Your task to perform on an android device: Add "razer naga" to the cart on ebay, then select checkout. Image 0: 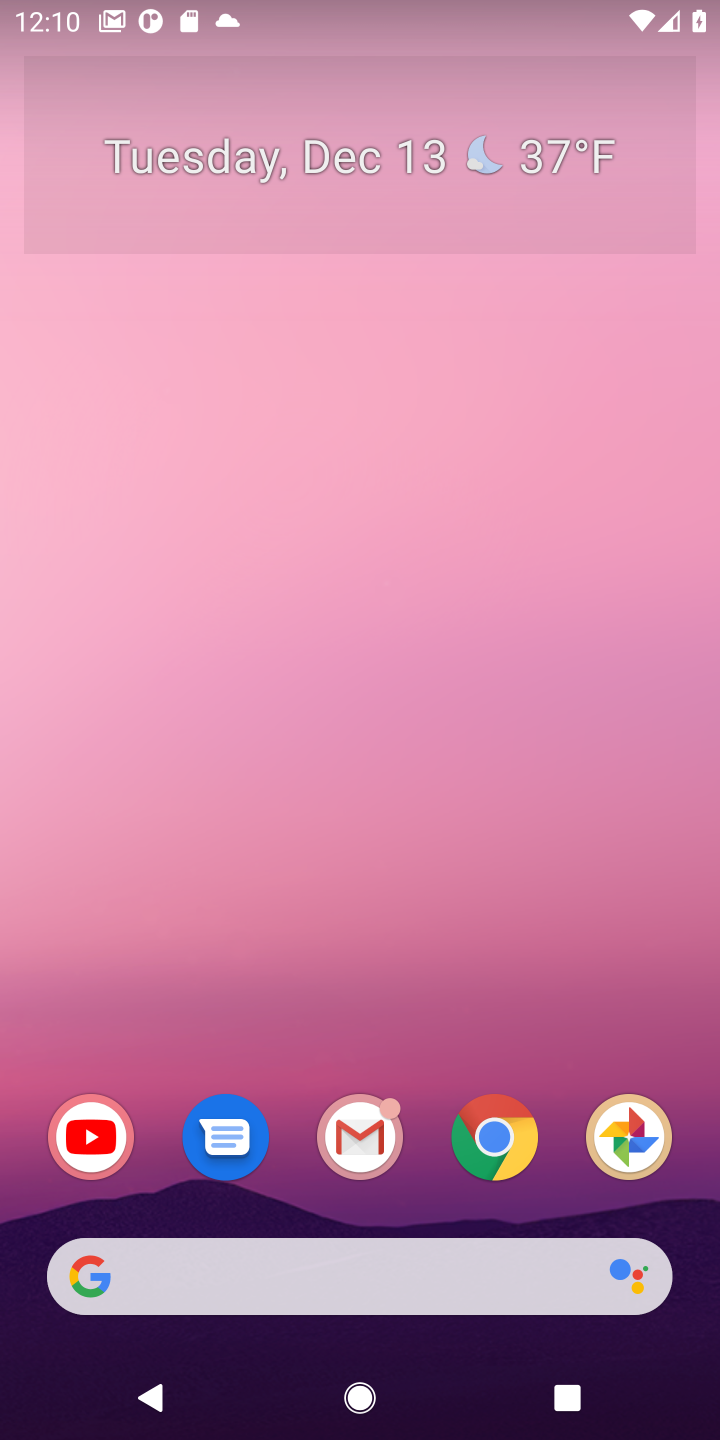
Step 0: click (257, 1283)
Your task to perform on an android device: Add "razer naga" to the cart on ebay, then select checkout. Image 1: 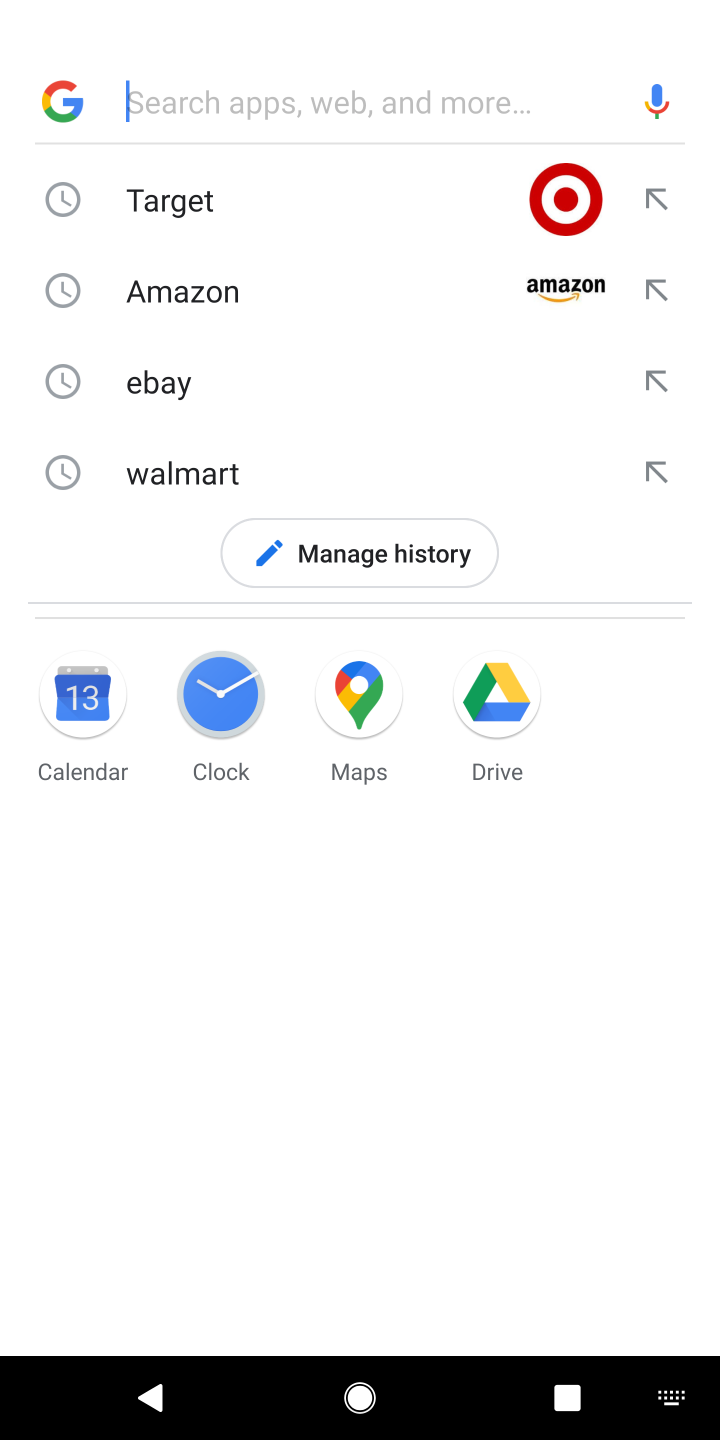
Step 1: click (289, 388)
Your task to perform on an android device: Add "razer naga" to the cart on ebay, then select checkout. Image 2: 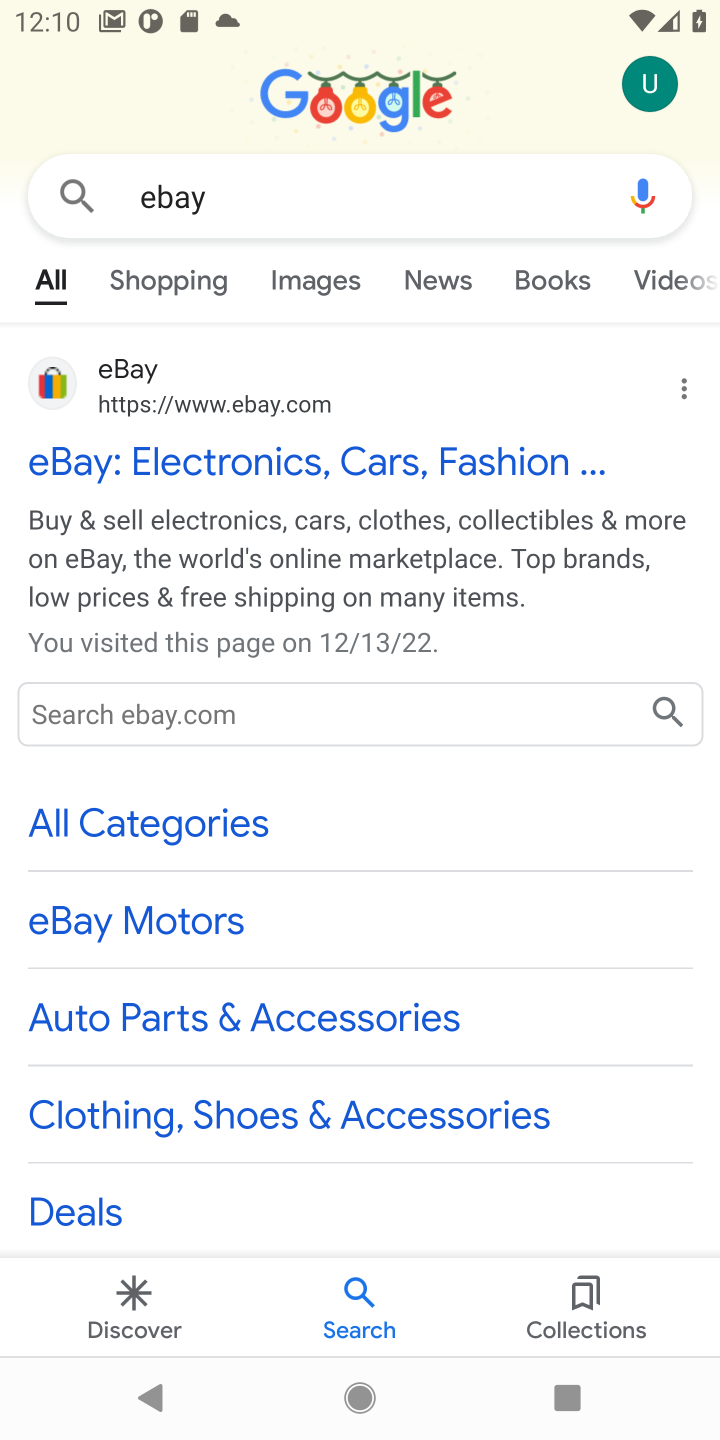
Step 2: click (238, 438)
Your task to perform on an android device: Add "razer naga" to the cart on ebay, then select checkout. Image 3: 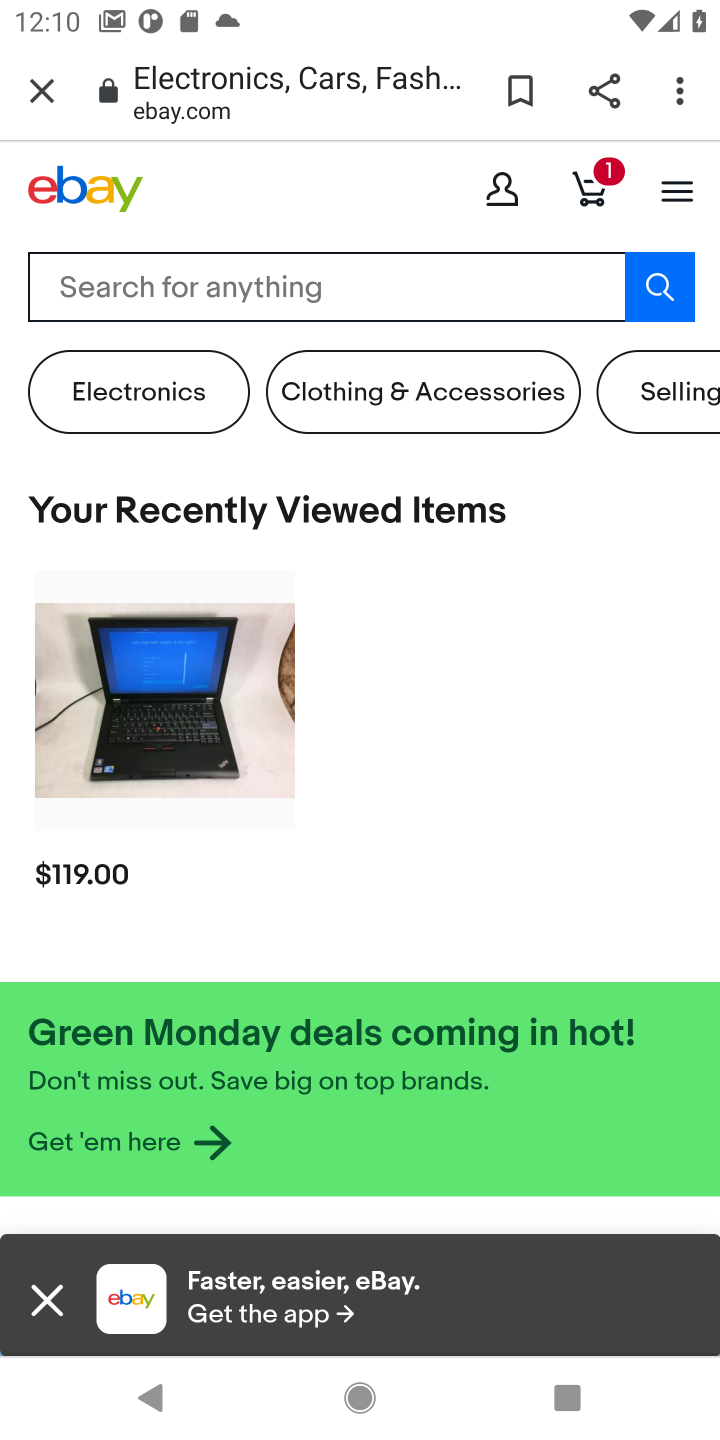
Step 3: click (296, 307)
Your task to perform on an android device: Add "razer naga" to the cart on ebay, then select checkout. Image 4: 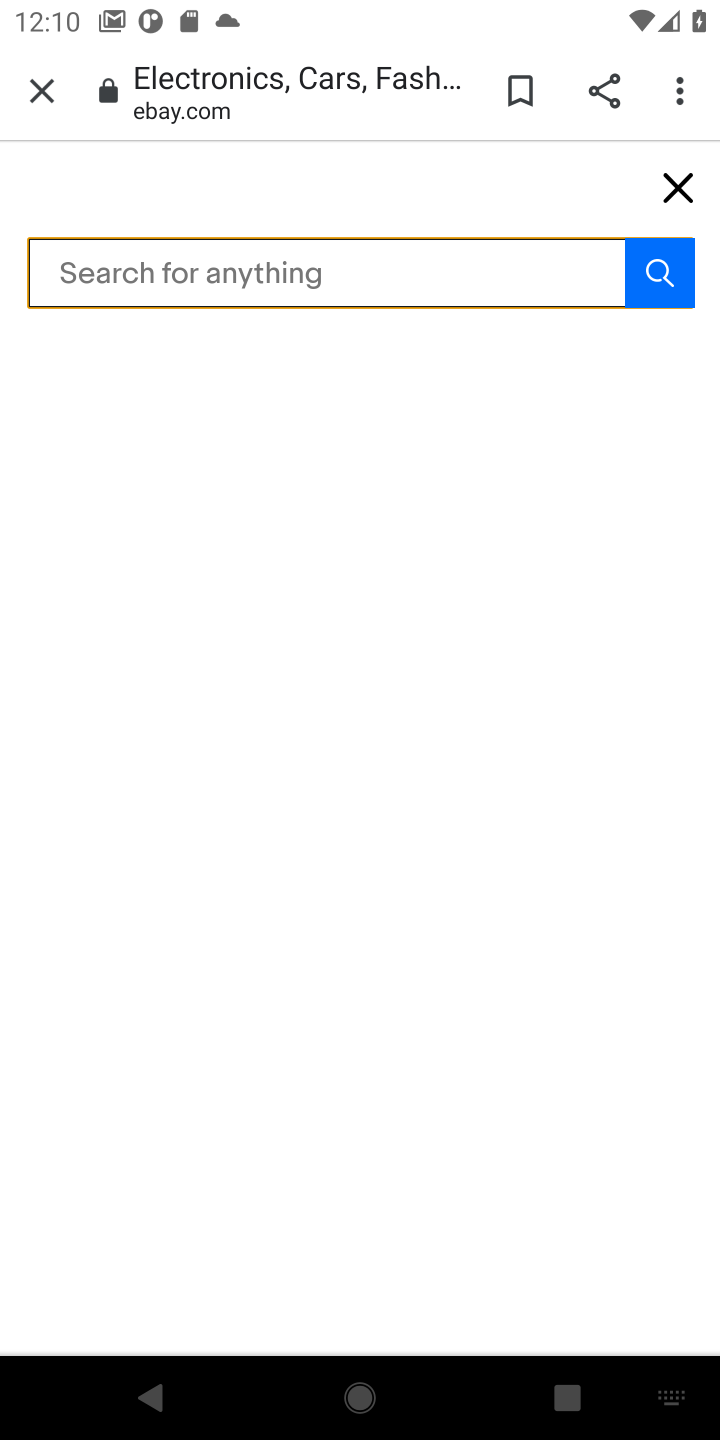
Step 4: type "razer naga"
Your task to perform on an android device: Add "razer naga" to the cart on ebay, then select checkout. Image 5: 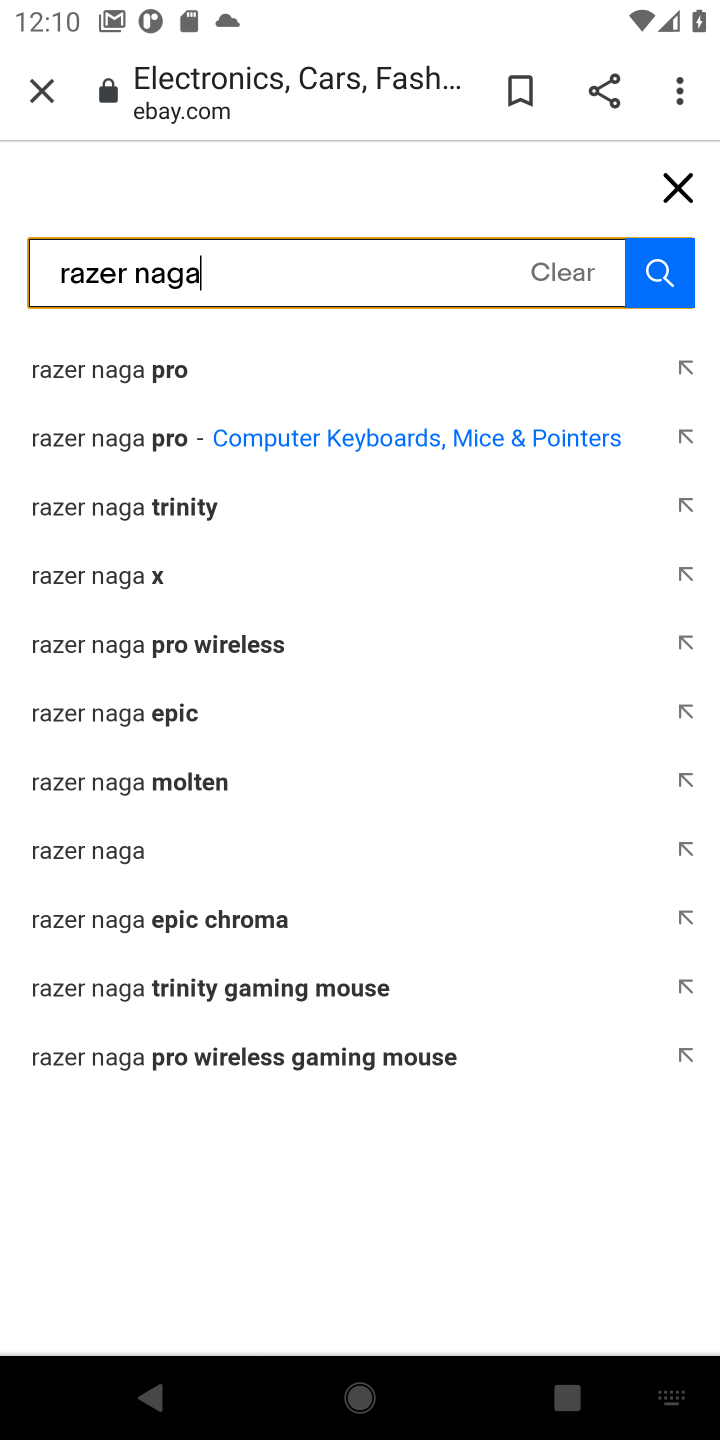
Step 5: click (154, 389)
Your task to perform on an android device: Add "razer naga" to the cart on ebay, then select checkout. Image 6: 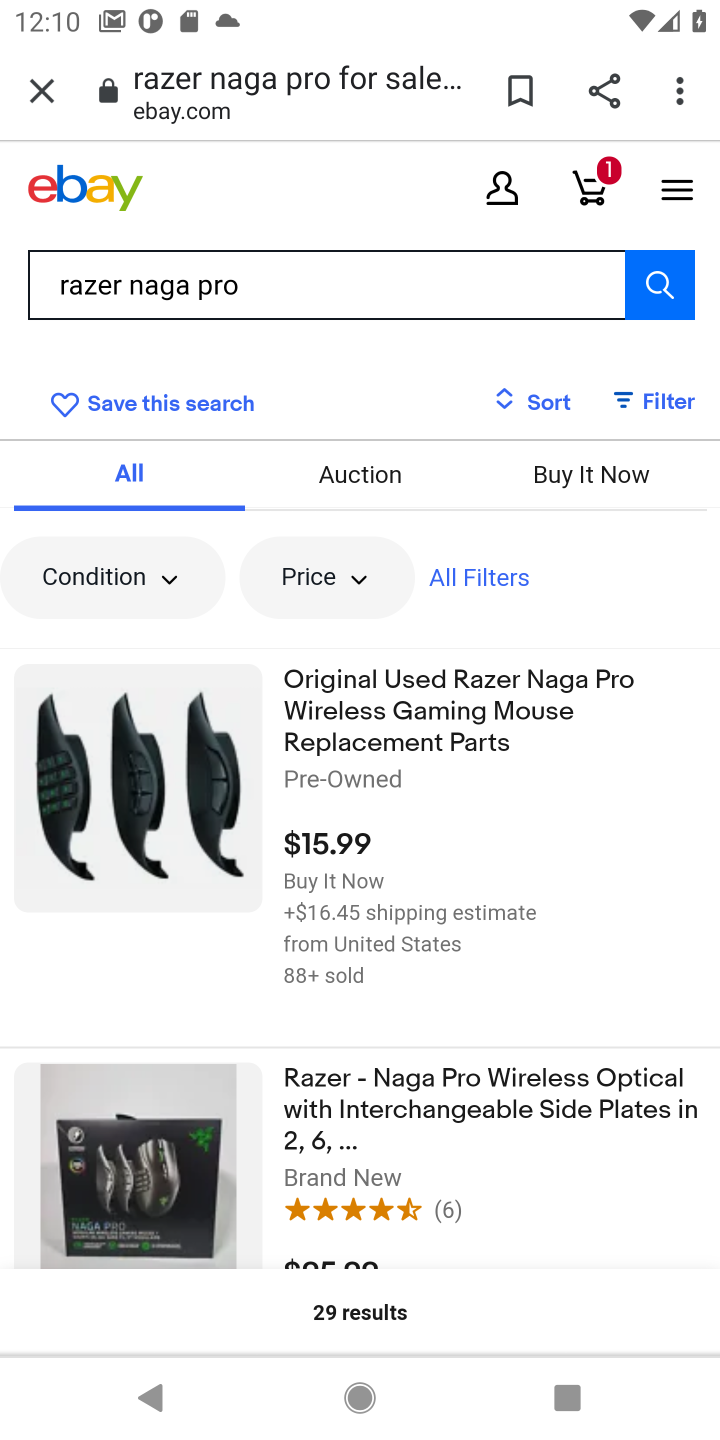
Step 6: click (394, 719)
Your task to perform on an android device: Add "razer naga" to the cart on ebay, then select checkout. Image 7: 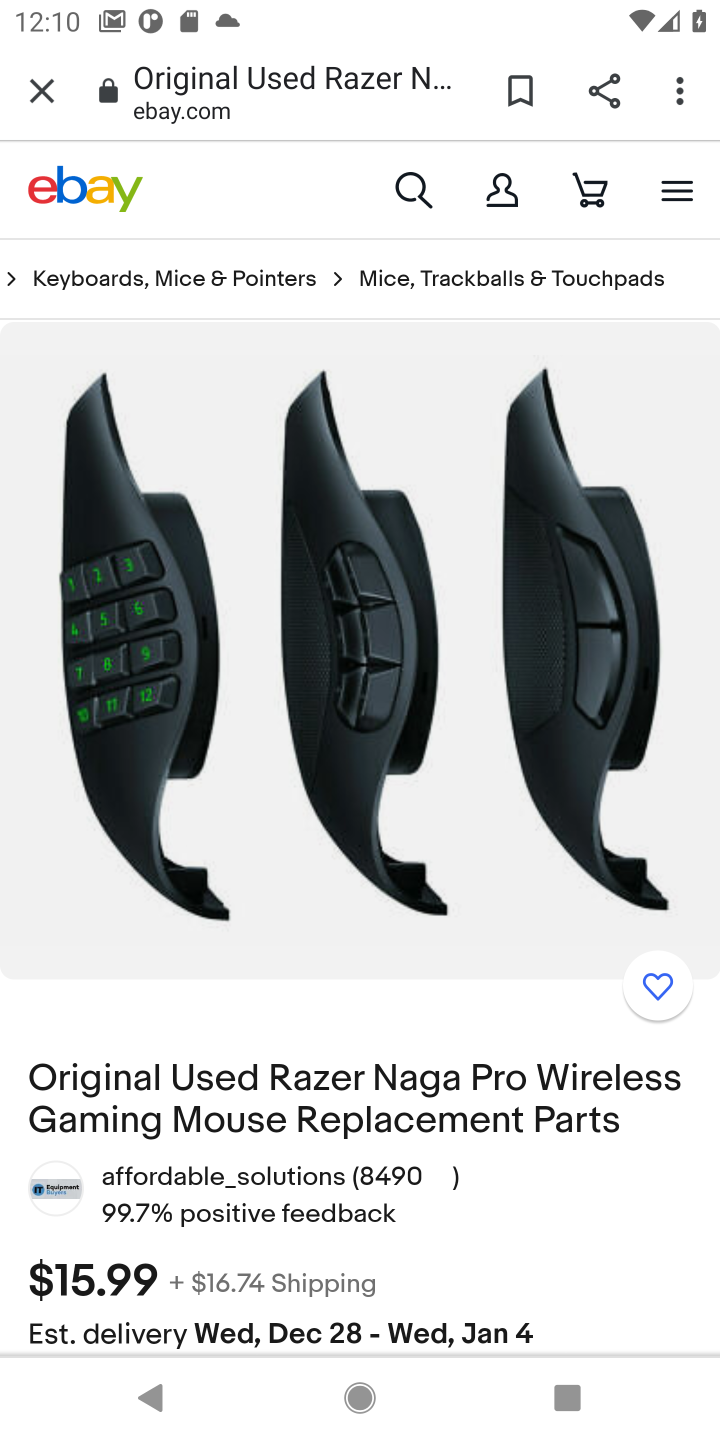
Step 7: task complete